Your task to perform on an android device: Go to privacy settings Image 0: 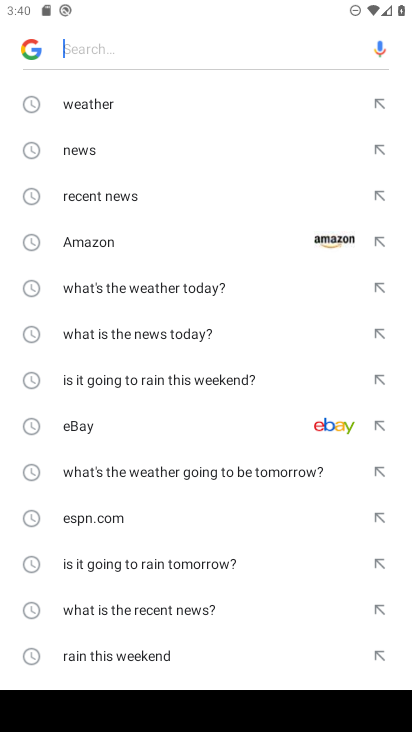
Step 0: press back button
Your task to perform on an android device: Go to privacy settings Image 1: 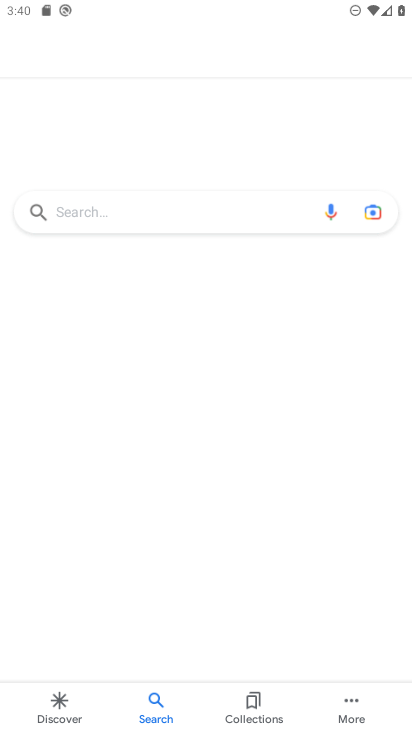
Step 1: press back button
Your task to perform on an android device: Go to privacy settings Image 2: 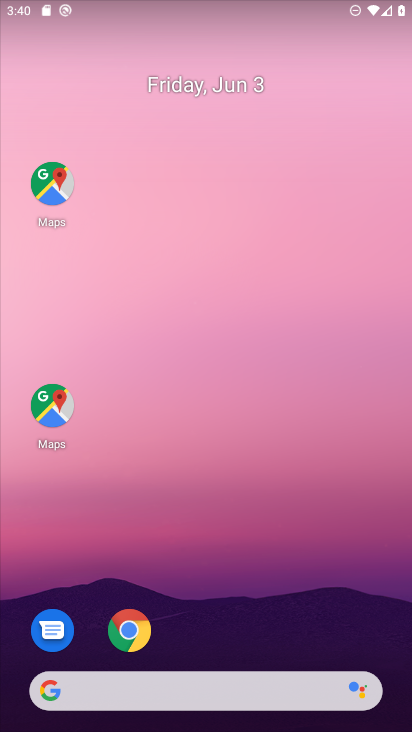
Step 2: drag from (229, 692) to (202, 56)
Your task to perform on an android device: Go to privacy settings Image 3: 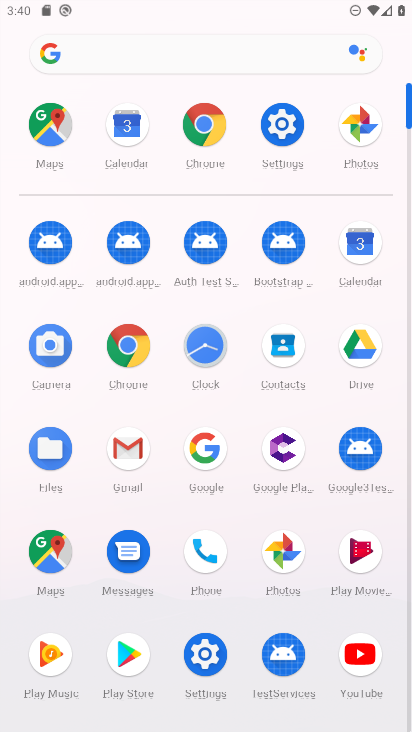
Step 3: click (276, 130)
Your task to perform on an android device: Go to privacy settings Image 4: 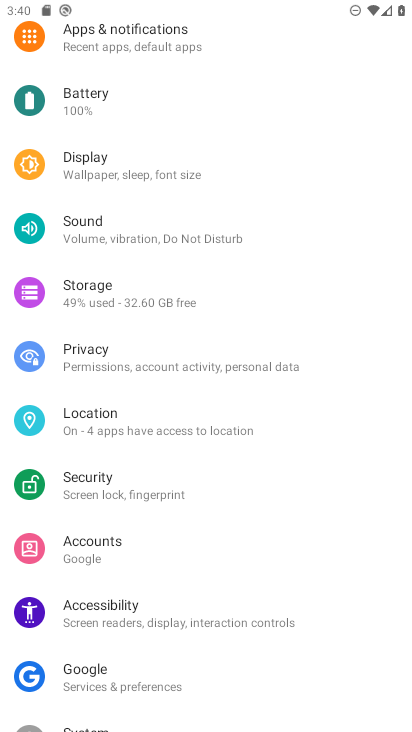
Step 4: click (85, 353)
Your task to perform on an android device: Go to privacy settings Image 5: 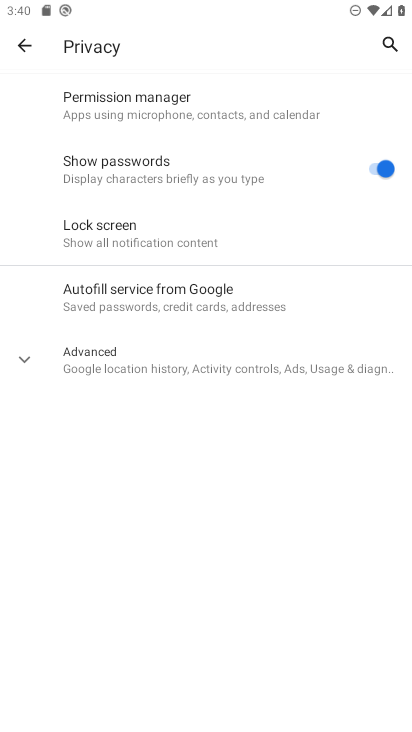
Step 5: task complete